Your task to perform on an android device: turn vacation reply on in the gmail app Image 0: 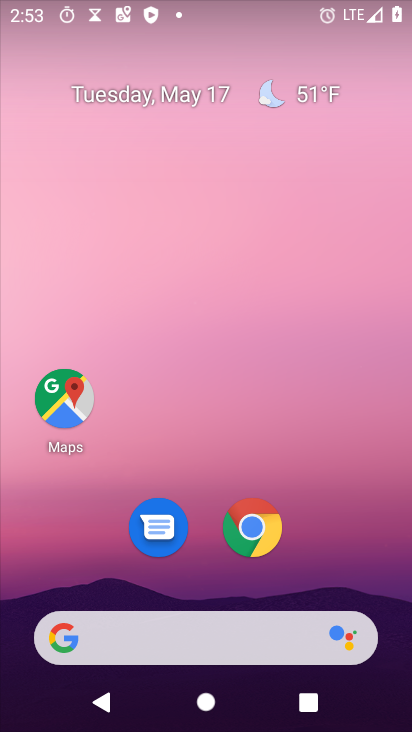
Step 0: drag from (338, 552) to (227, 35)
Your task to perform on an android device: turn vacation reply on in the gmail app Image 1: 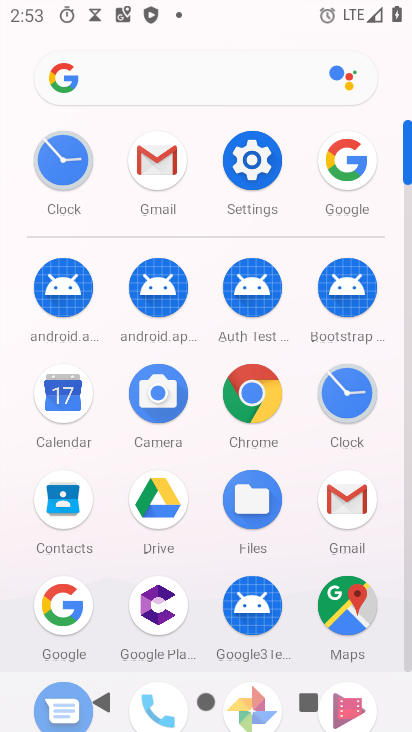
Step 1: click (157, 160)
Your task to perform on an android device: turn vacation reply on in the gmail app Image 2: 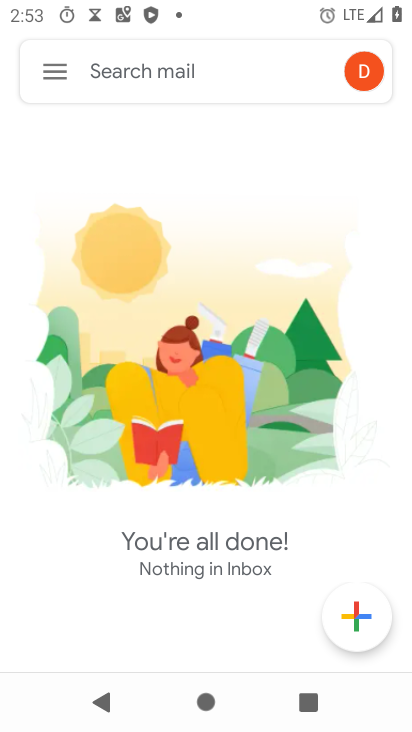
Step 2: click (60, 68)
Your task to perform on an android device: turn vacation reply on in the gmail app Image 3: 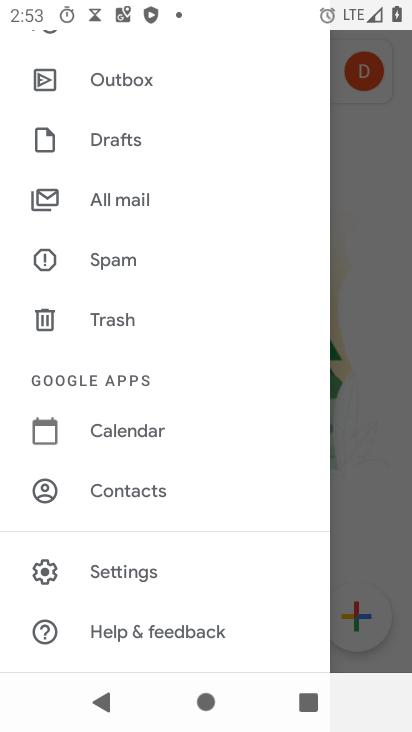
Step 3: click (114, 570)
Your task to perform on an android device: turn vacation reply on in the gmail app Image 4: 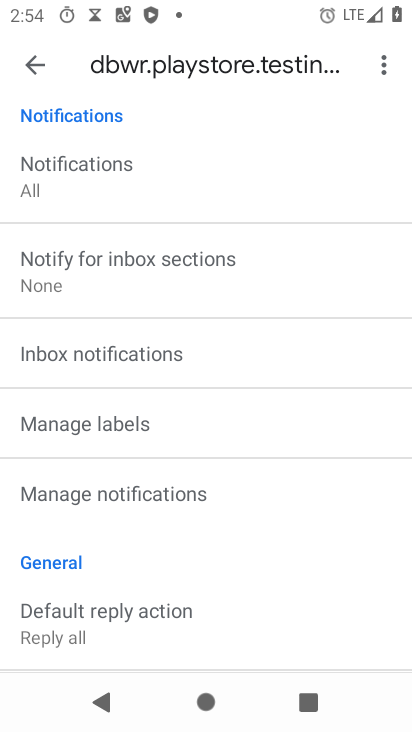
Step 4: drag from (136, 521) to (159, 430)
Your task to perform on an android device: turn vacation reply on in the gmail app Image 5: 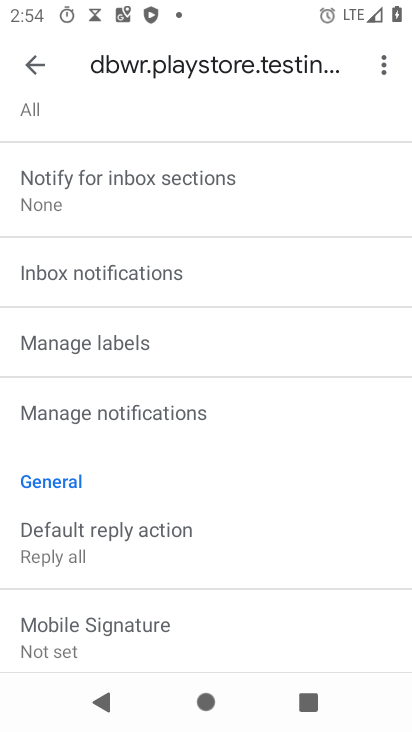
Step 5: drag from (159, 568) to (167, 461)
Your task to perform on an android device: turn vacation reply on in the gmail app Image 6: 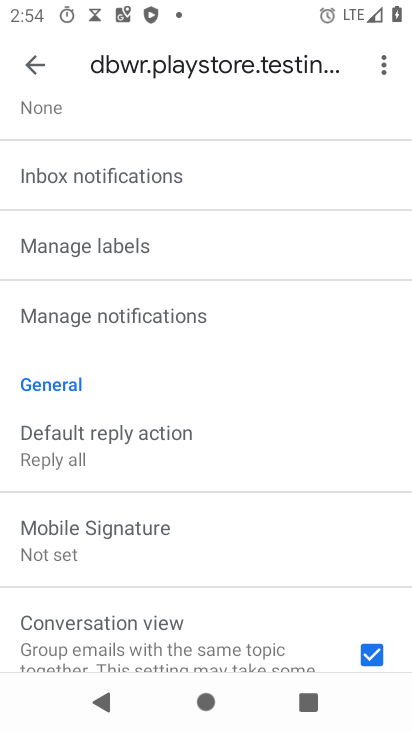
Step 6: drag from (106, 553) to (131, 432)
Your task to perform on an android device: turn vacation reply on in the gmail app Image 7: 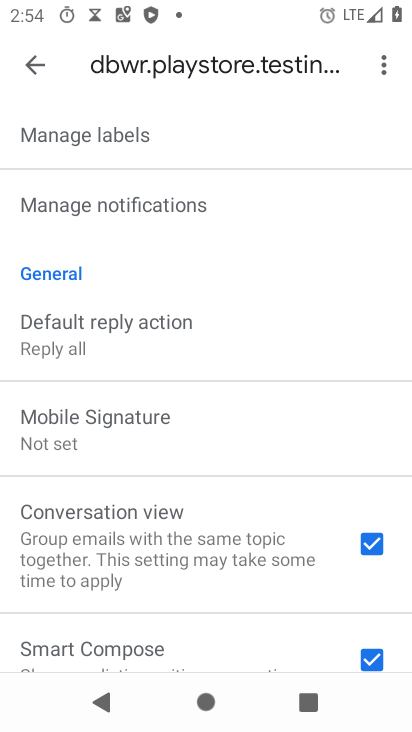
Step 7: drag from (151, 575) to (171, 446)
Your task to perform on an android device: turn vacation reply on in the gmail app Image 8: 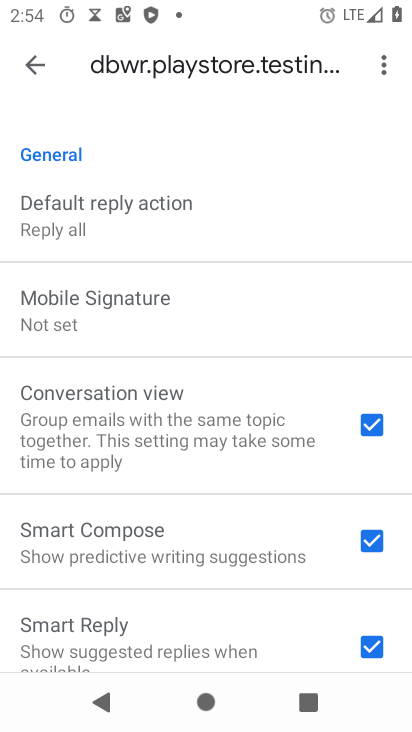
Step 8: drag from (142, 579) to (162, 466)
Your task to perform on an android device: turn vacation reply on in the gmail app Image 9: 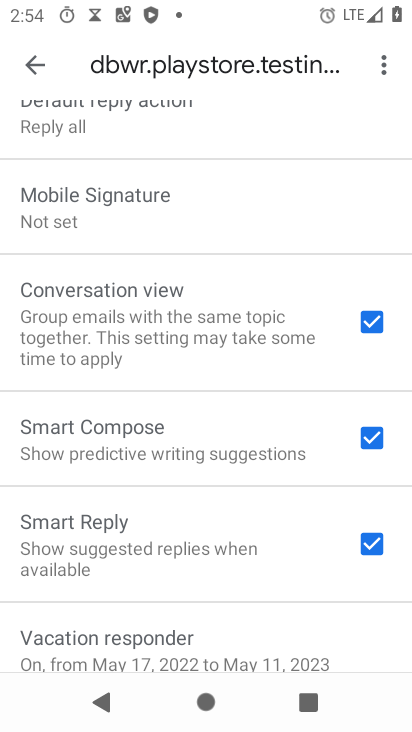
Step 9: drag from (131, 592) to (160, 433)
Your task to perform on an android device: turn vacation reply on in the gmail app Image 10: 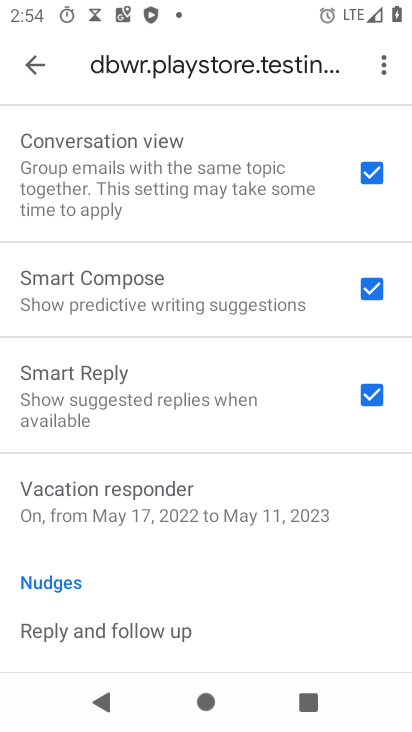
Step 10: click (122, 493)
Your task to perform on an android device: turn vacation reply on in the gmail app Image 11: 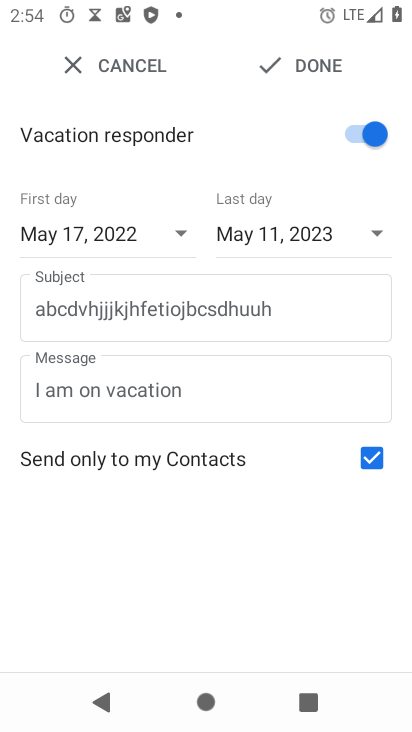
Step 11: task complete